Your task to perform on an android device: refresh tabs in the chrome app Image 0: 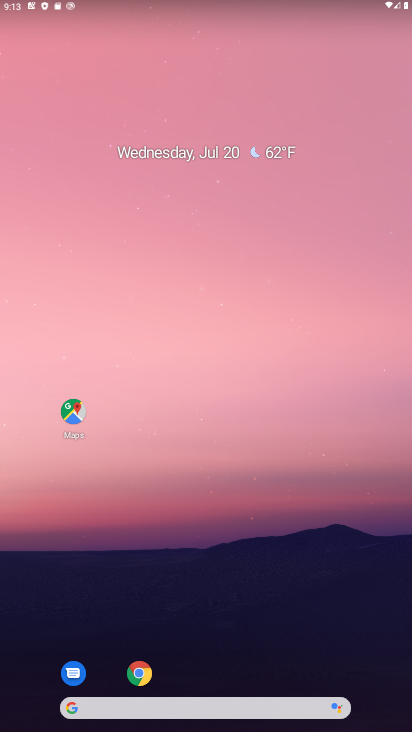
Step 0: click (133, 671)
Your task to perform on an android device: refresh tabs in the chrome app Image 1: 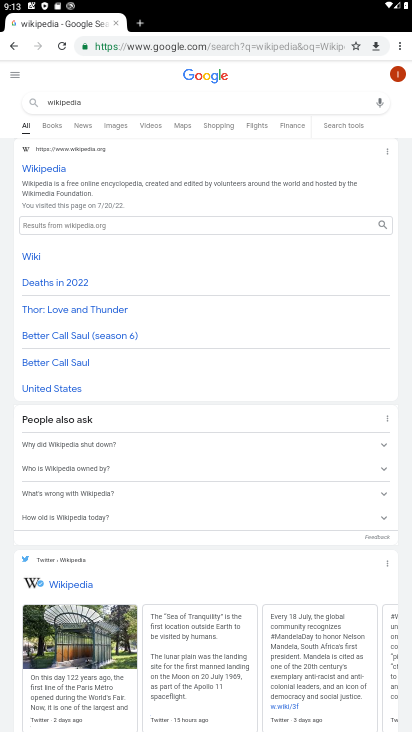
Step 1: click (401, 46)
Your task to perform on an android device: refresh tabs in the chrome app Image 2: 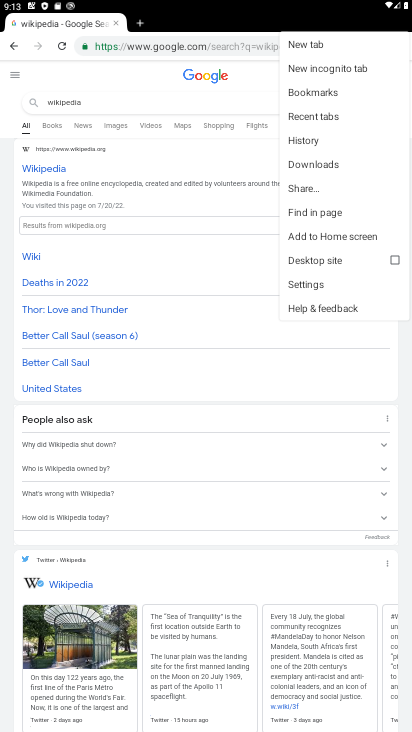
Step 2: click (306, 42)
Your task to perform on an android device: refresh tabs in the chrome app Image 3: 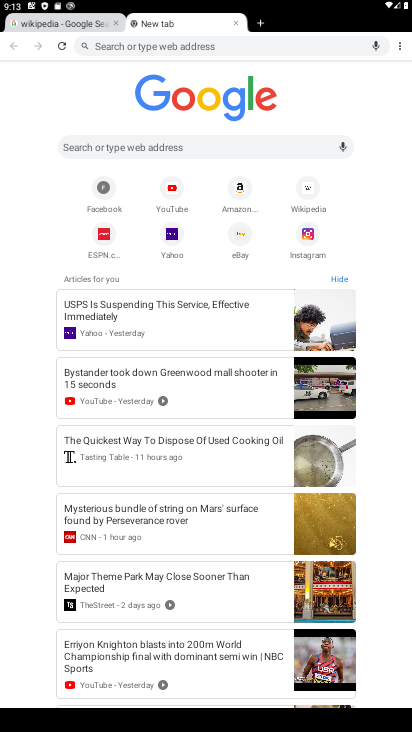
Step 3: click (400, 45)
Your task to perform on an android device: refresh tabs in the chrome app Image 4: 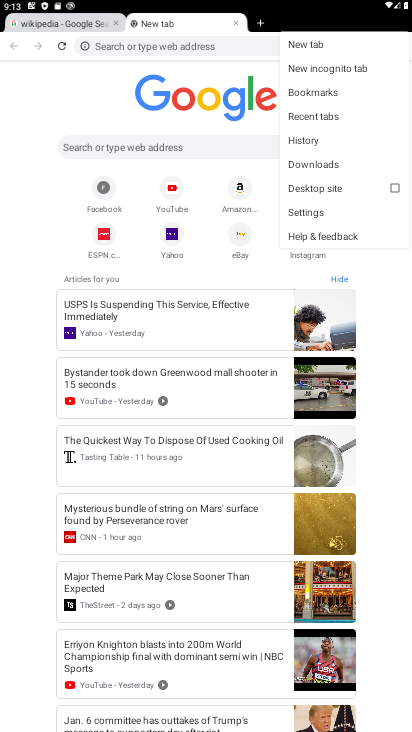
Step 4: click (38, 134)
Your task to perform on an android device: refresh tabs in the chrome app Image 5: 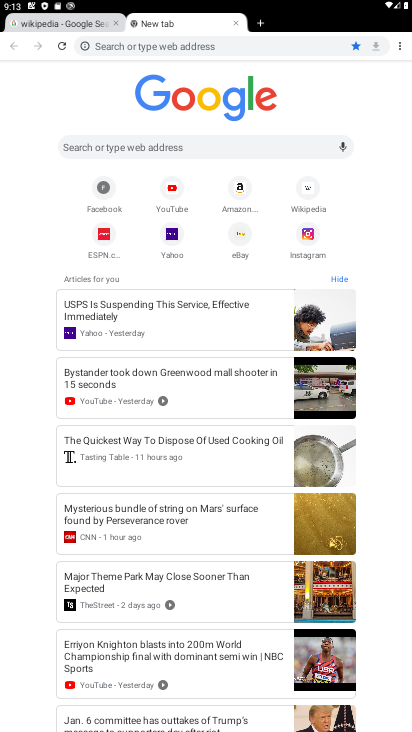
Step 5: task complete